Your task to perform on an android device: Do I have any events this weekend? Image 0: 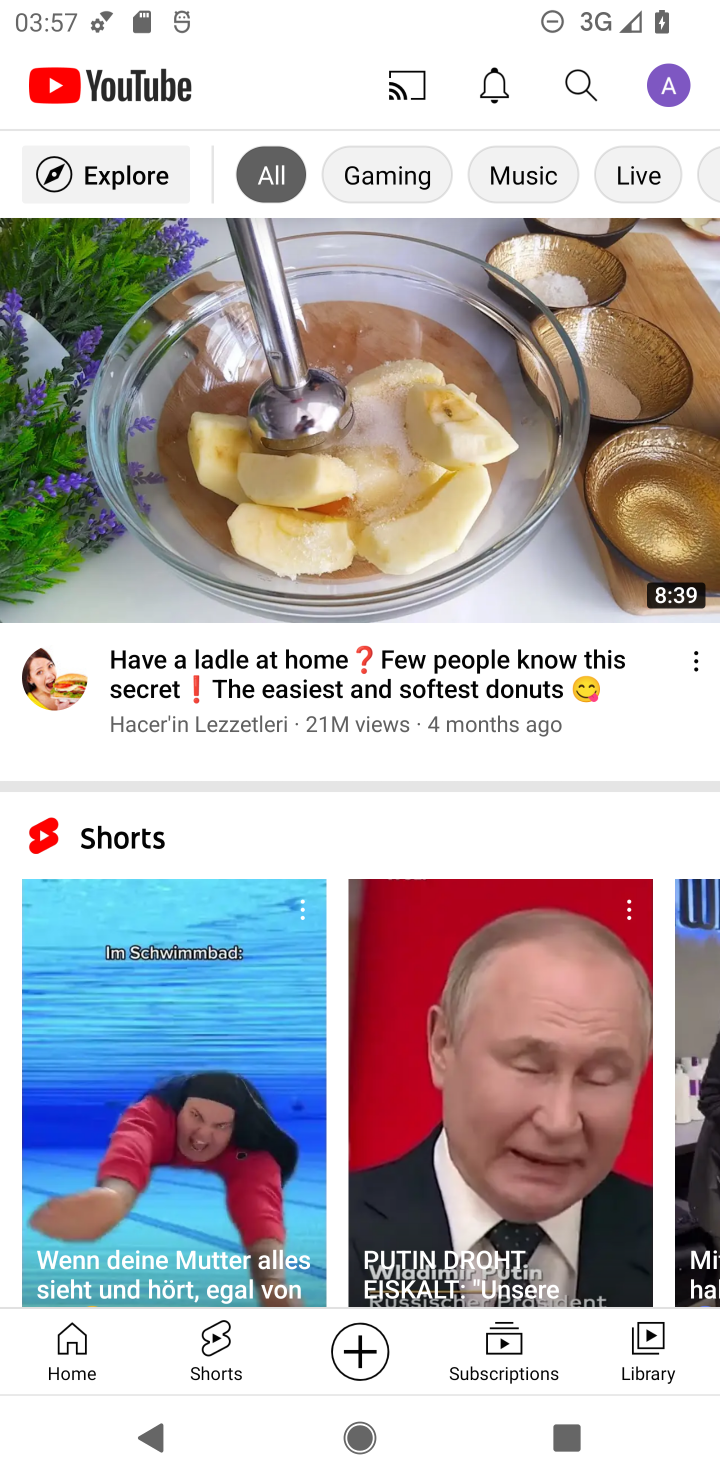
Step 0: press home button
Your task to perform on an android device: Do I have any events this weekend? Image 1: 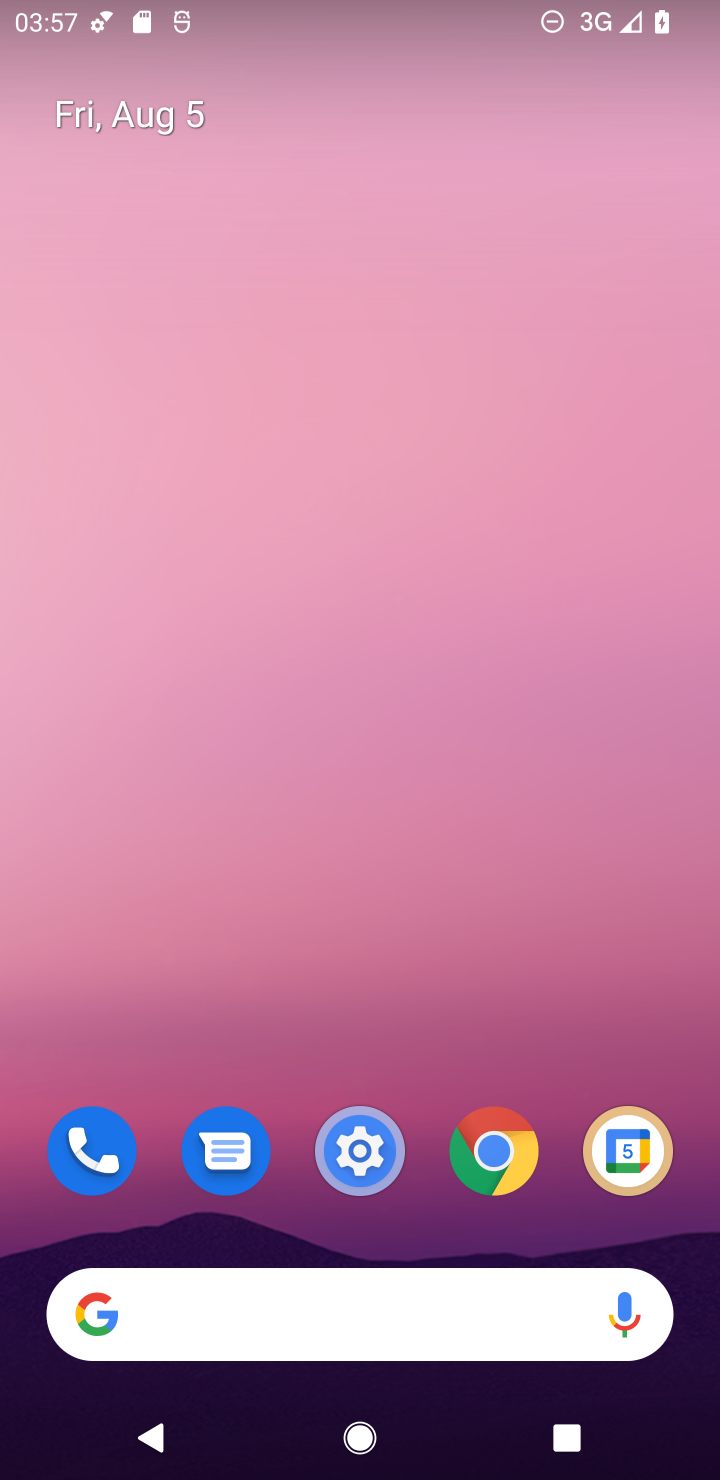
Step 1: drag from (498, 968) to (449, 225)
Your task to perform on an android device: Do I have any events this weekend? Image 2: 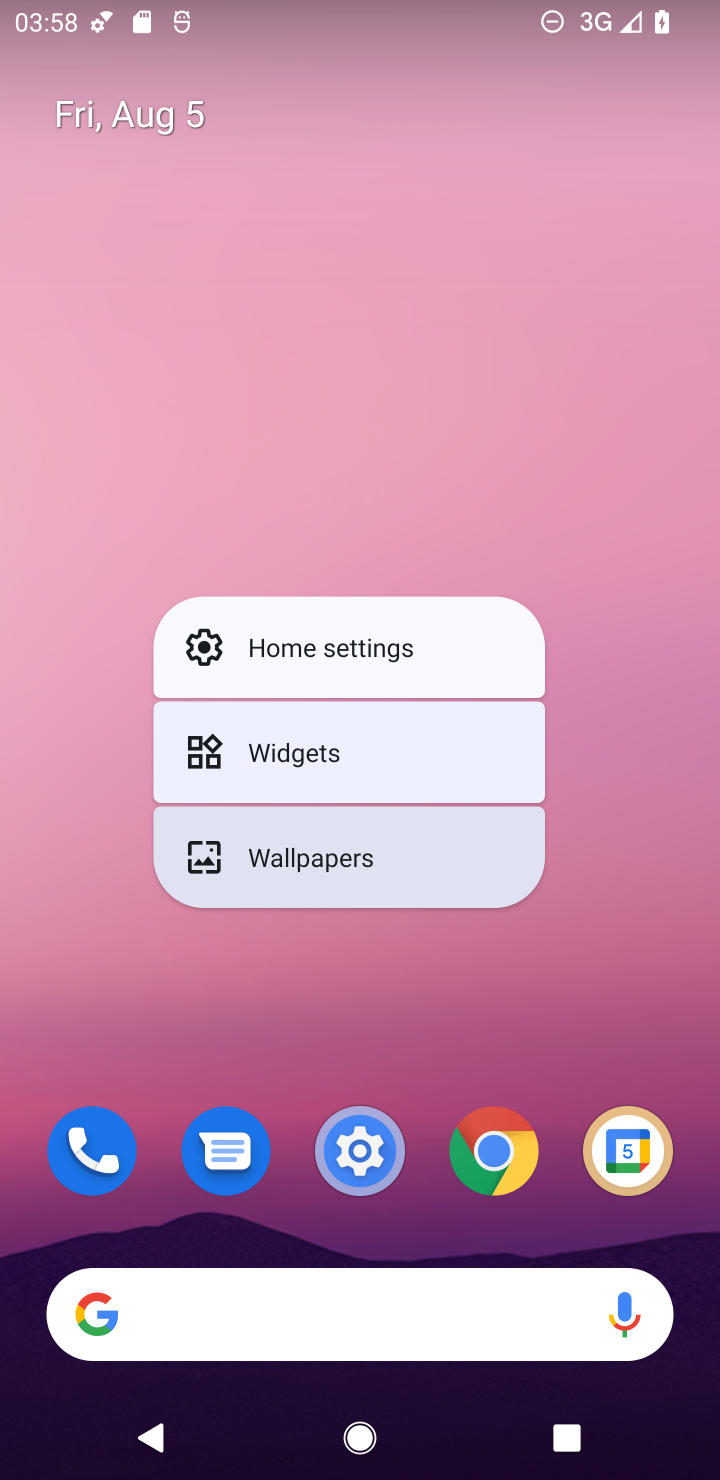
Step 2: click (483, 269)
Your task to perform on an android device: Do I have any events this weekend? Image 3: 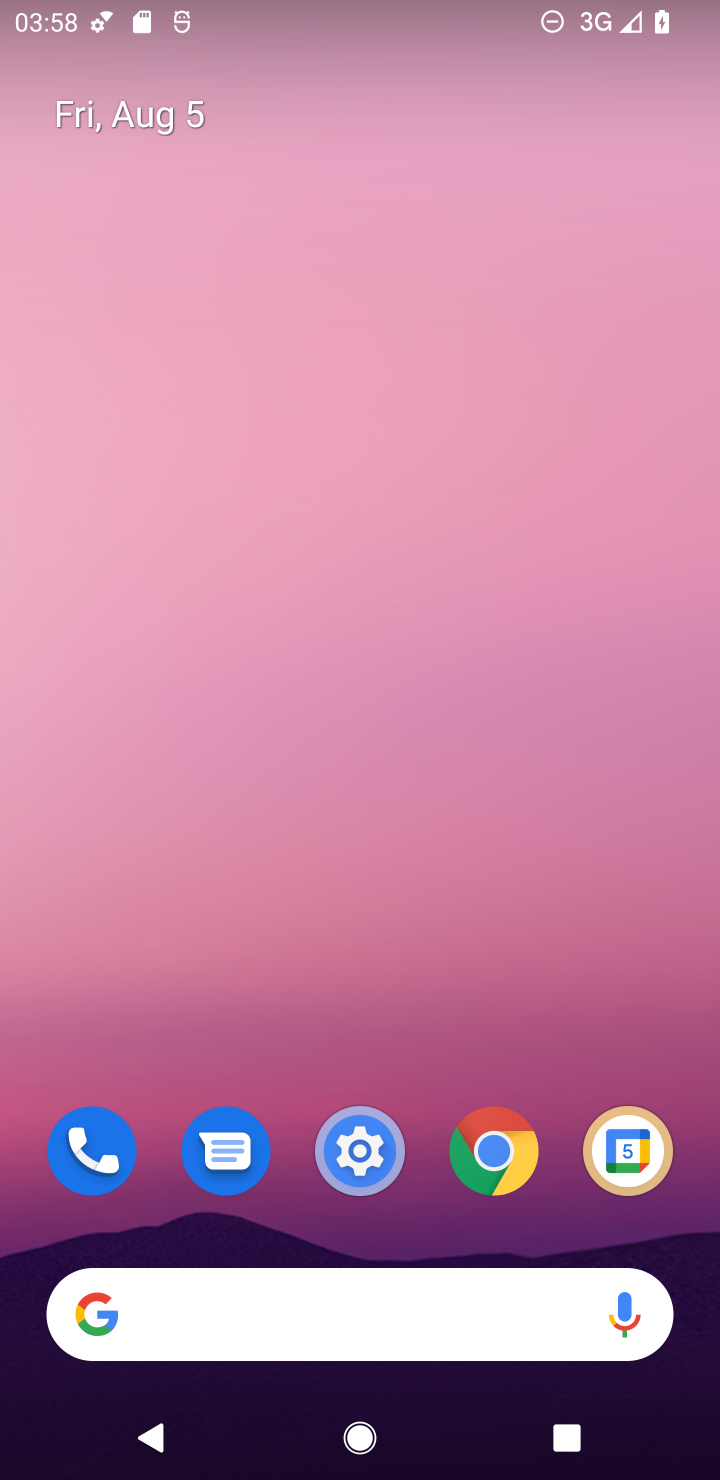
Step 3: drag from (506, 1026) to (298, 306)
Your task to perform on an android device: Do I have any events this weekend? Image 4: 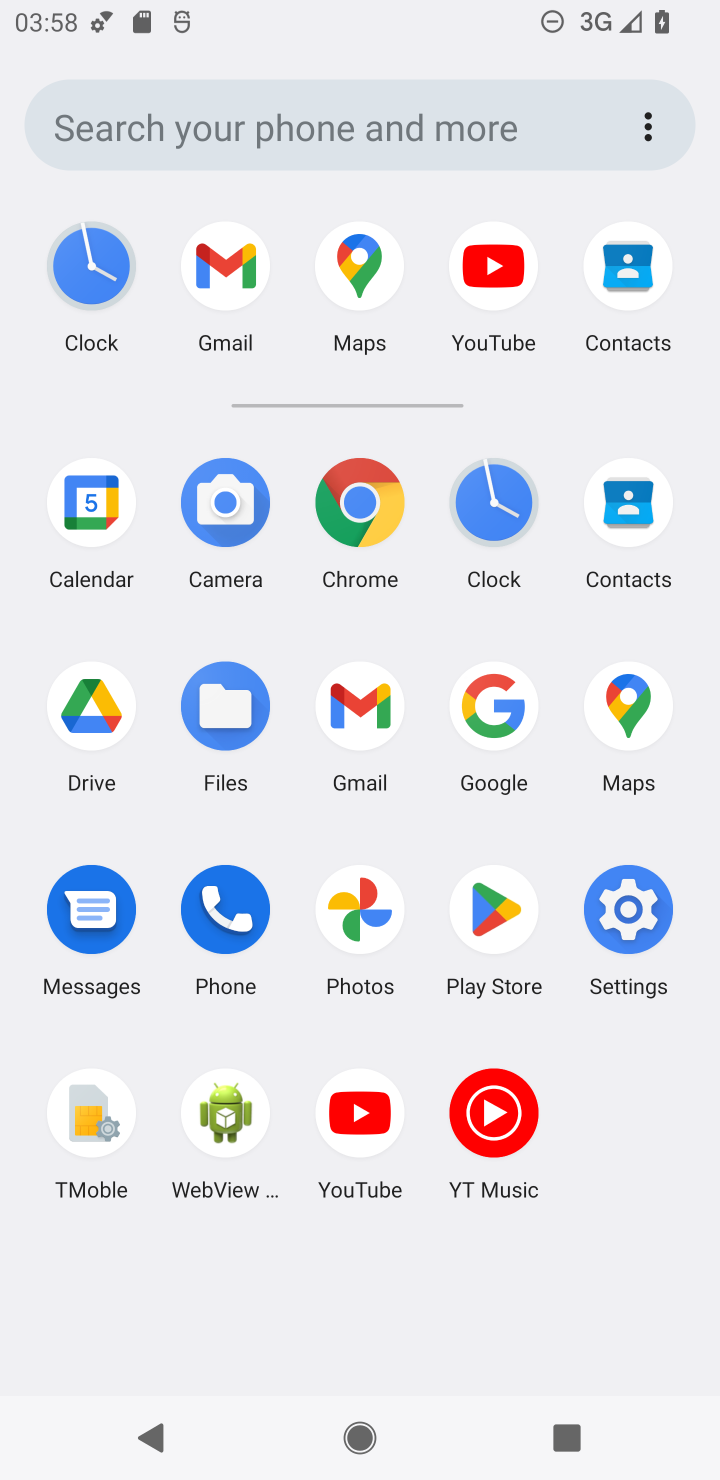
Step 4: click (69, 521)
Your task to perform on an android device: Do I have any events this weekend? Image 5: 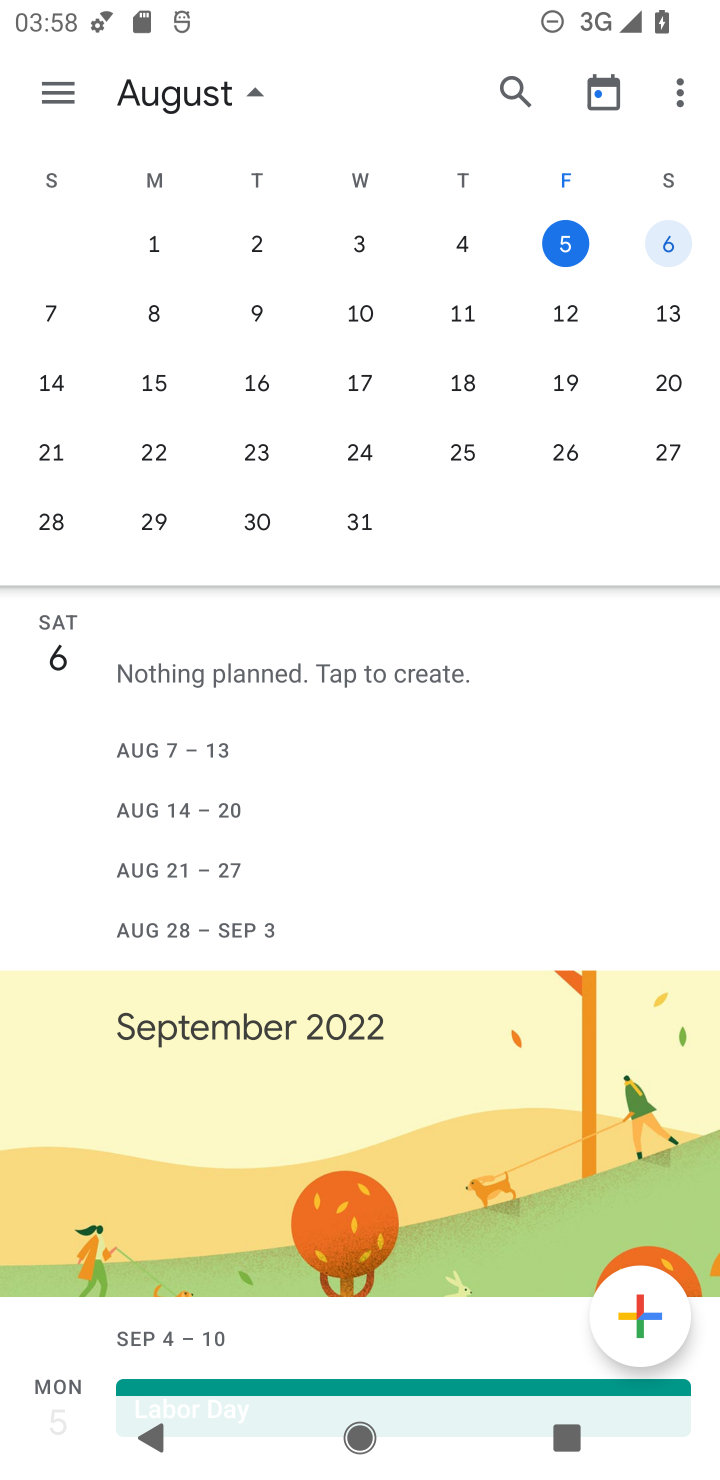
Step 5: click (654, 248)
Your task to perform on an android device: Do I have any events this weekend? Image 6: 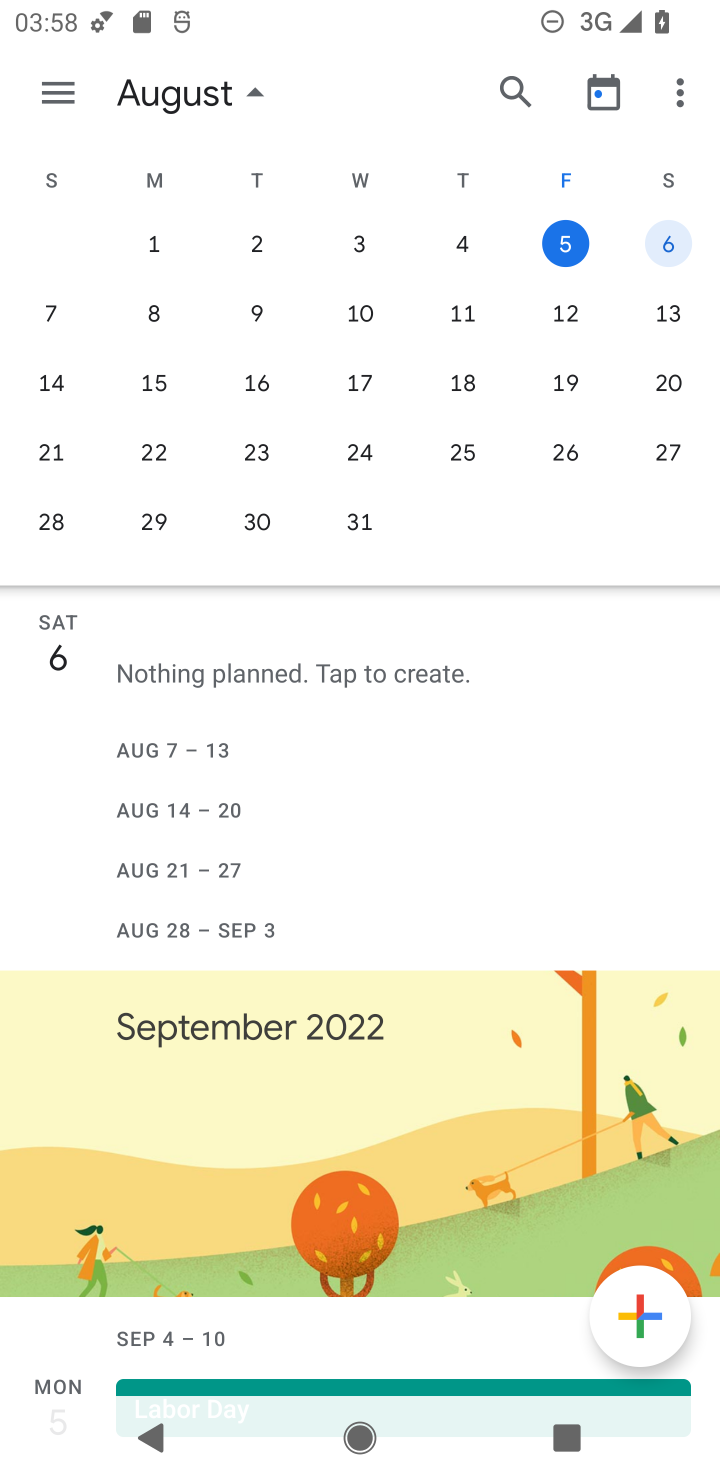
Step 6: task complete